Your task to perform on an android device: Open Chrome and go to settings Image 0: 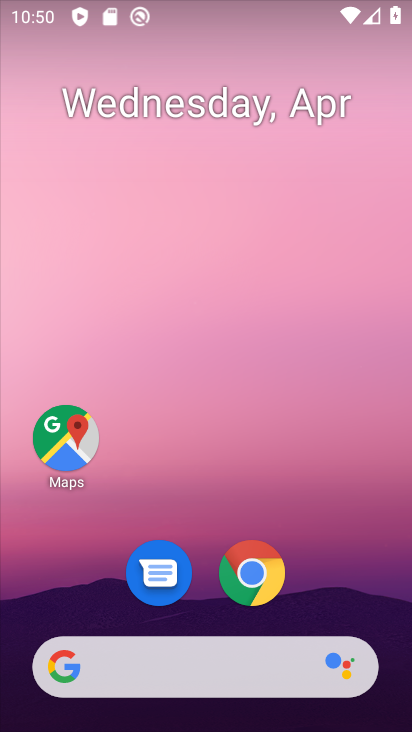
Step 0: click (241, 609)
Your task to perform on an android device: Open Chrome and go to settings Image 1: 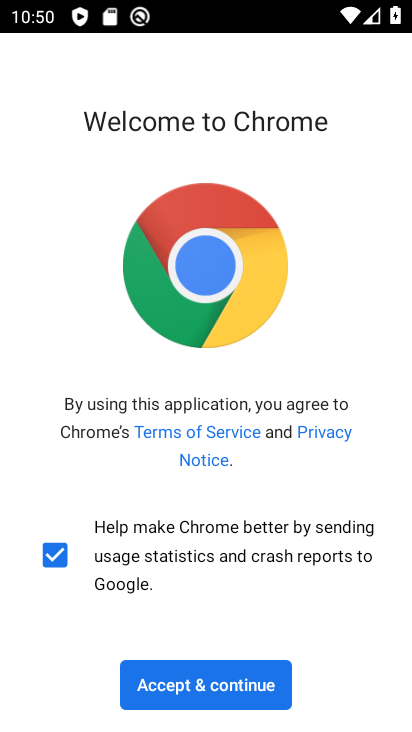
Step 1: click (216, 687)
Your task to perform on an android device: Open Chrome and go to settings Image 2: 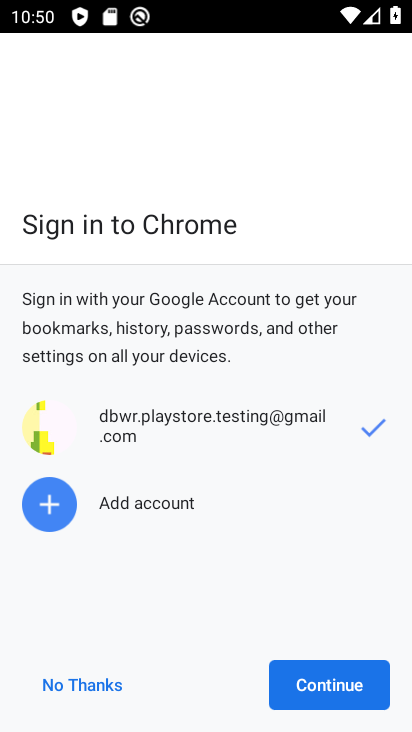
Step 2: click (107, 681)
Your task to perform on an android device: Open Chrome and go to settings Image 3: 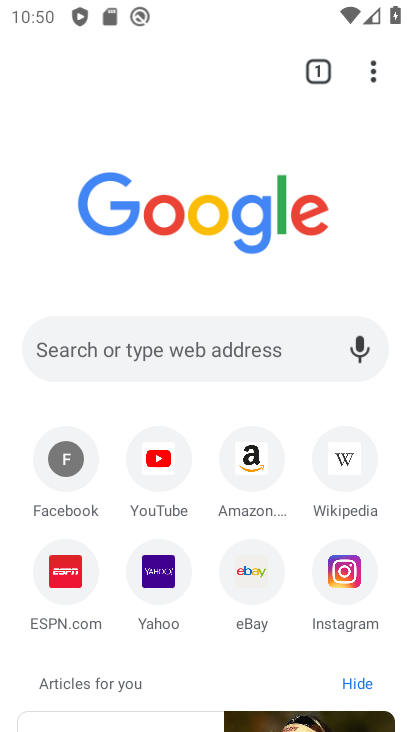
Step 3: click (372, 79)
Your task to perform on an android device: Open Chrome and go to settings Image 4: 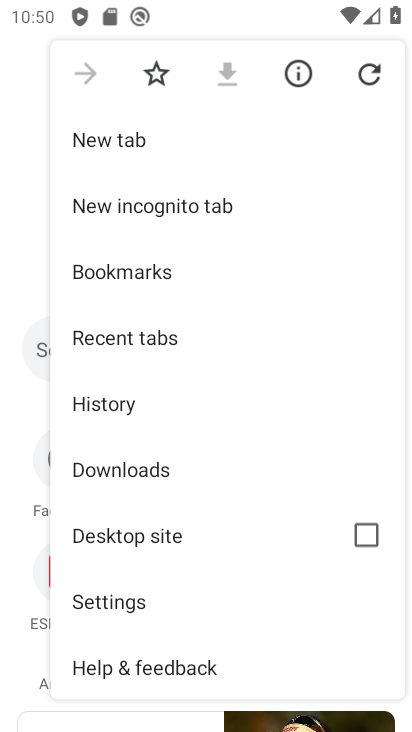
Step 4: click (124, 602)
Your task to perform on an android device: Open Chrome and go to settings Image 5: 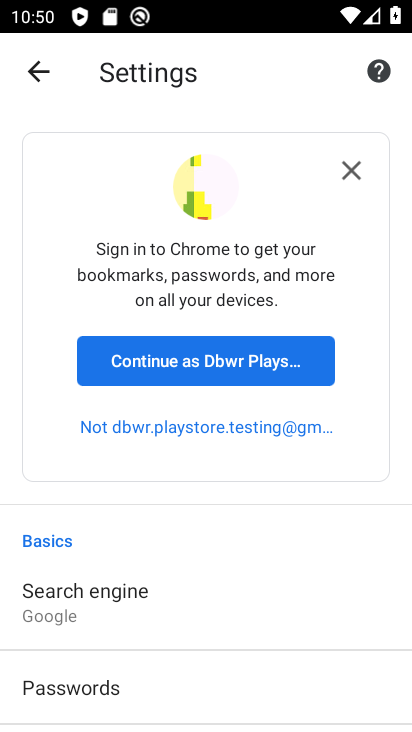
Step 5: task complete